Your task to perform on an android device: Go to wifi settings Image 0: 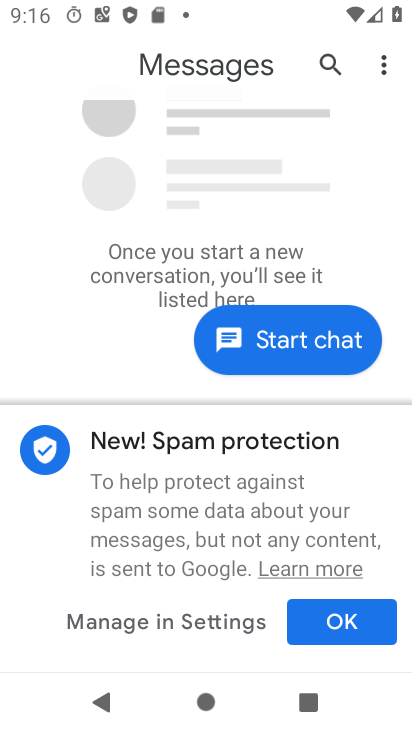
Step 0: press home button
Your task to perform on an android device: Go to wifi settings Image 1: 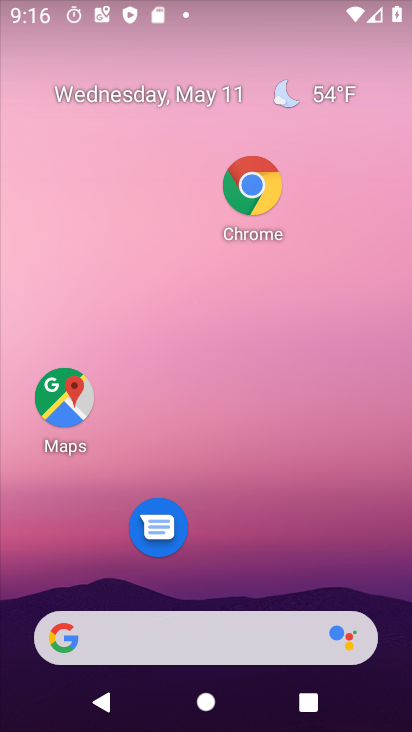
Step 1: drag from (280, 534) to (249, 147)
Your task to perform on an android device: Go to wifi settings Image 2: 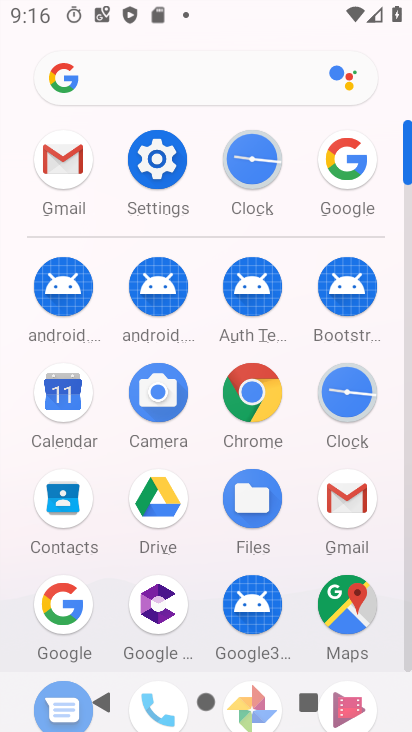
Step 2: click (164, 163)
Your task to perform on an android device: Go to wifi settings Image 3: 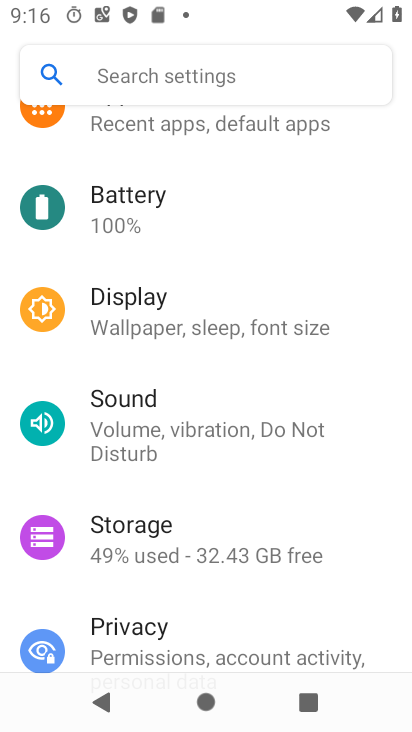
Step 3: drag from (190, 244) to (262, 674)
Your task to perform on an android device: Go to wifi settings Image 4: 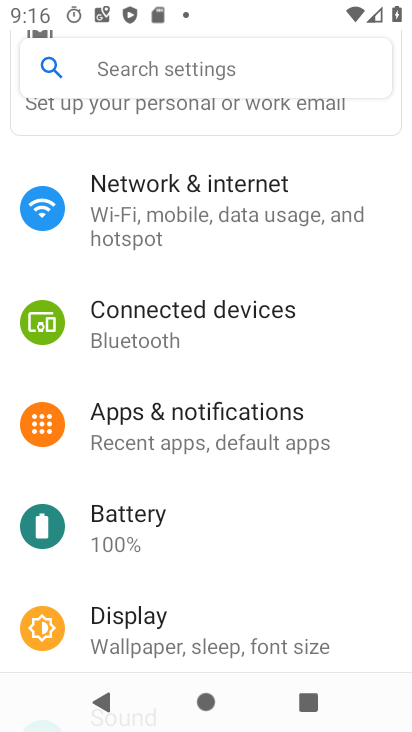
Step 4: drag from (140, 165) to (192, 526)
Your task to perform on an android device: Go to wifi settings Image 5: 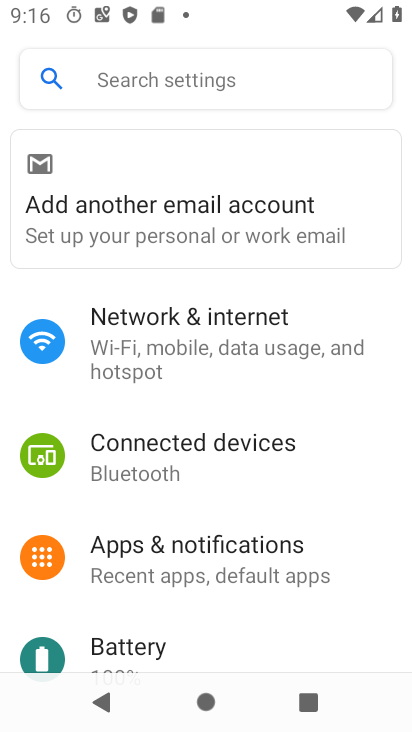
Step 5: click (166, 320)
Your task to perform on an android device: Go to wifi settings Image 6: 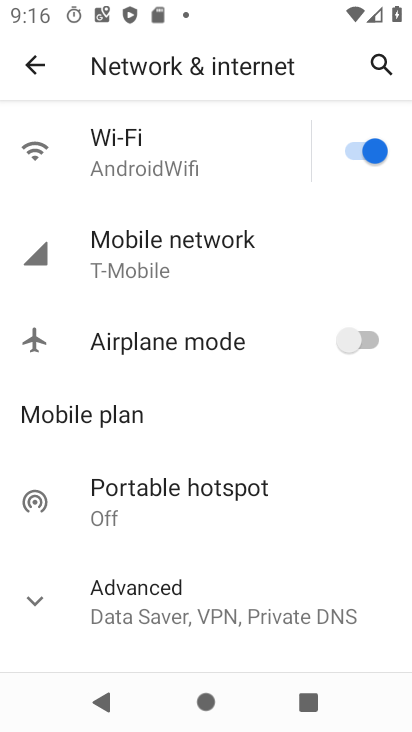
Step 6: click (150, 145)
Your task to perform on an android device: Go to wifi settings Image 7: 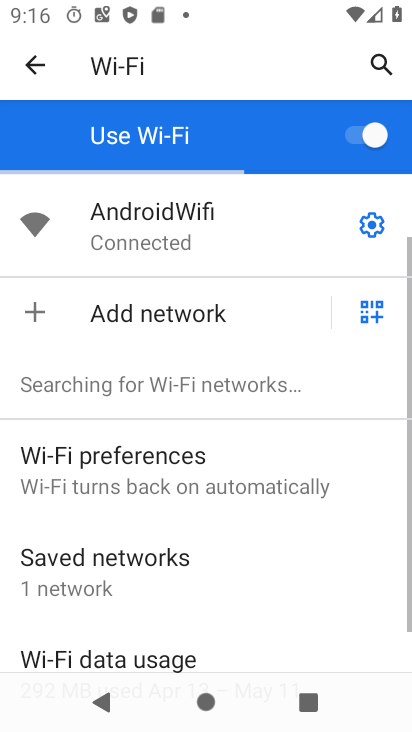
Step 7: click (355, 223)
Your task to perform on an android device: Go to wifi settings Image 8: 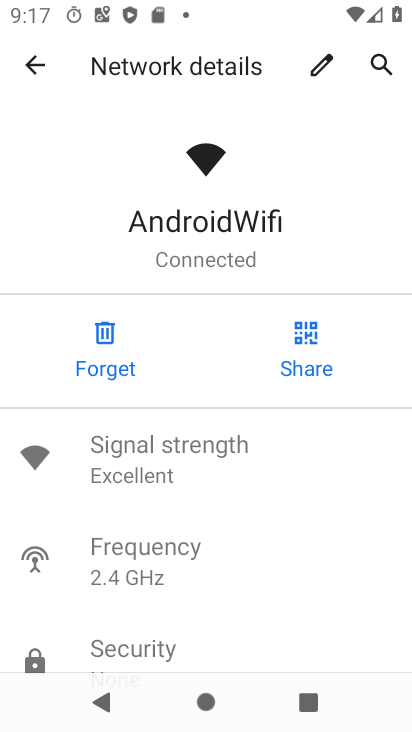
Step 8: task complete